Your task to perform on an android device: Clear all items from cart on walmart.com. Add logitech g910 to the cart on walmart.com Image 0: 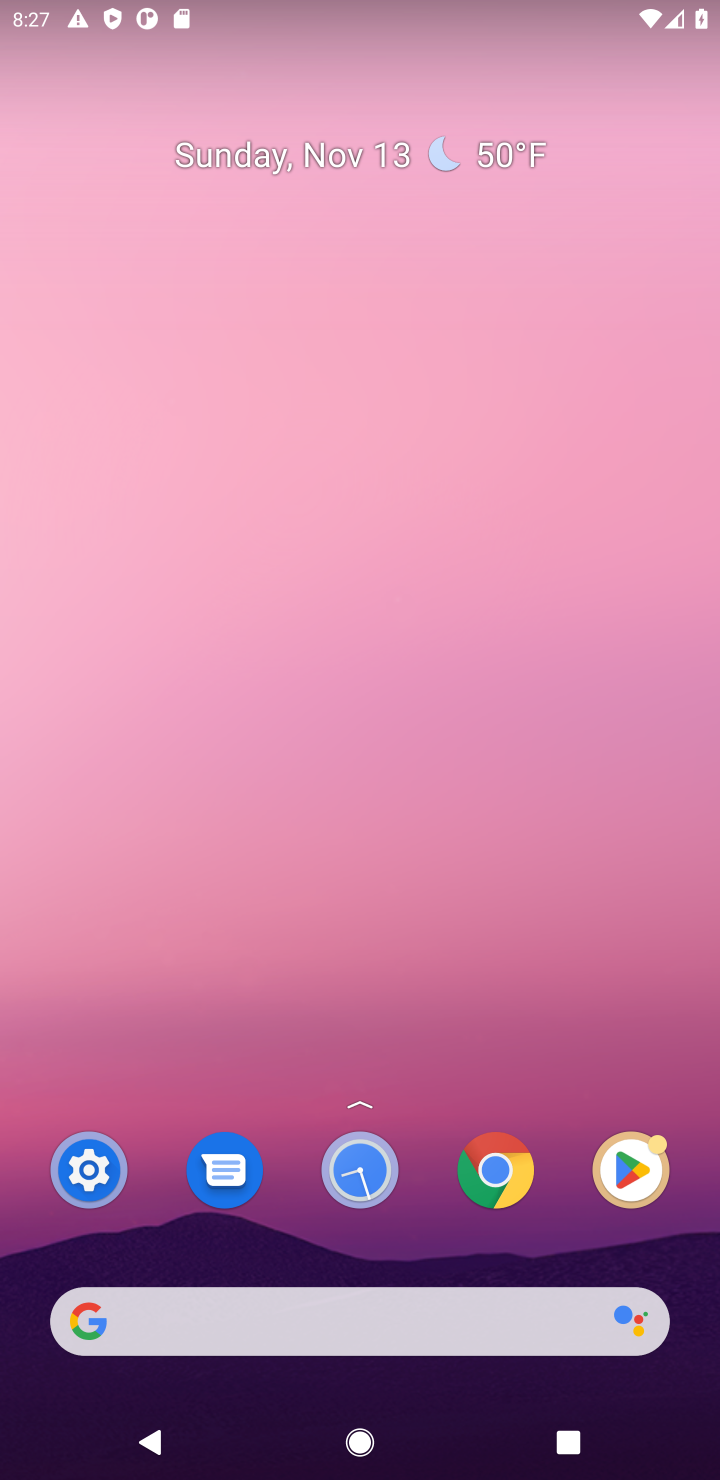
Step 0: click (345, 1349)
Your task to perform on an android device: Clear all items from cart on walmart.com. Add logitech g910 to the cart on walmart.com Image 1: 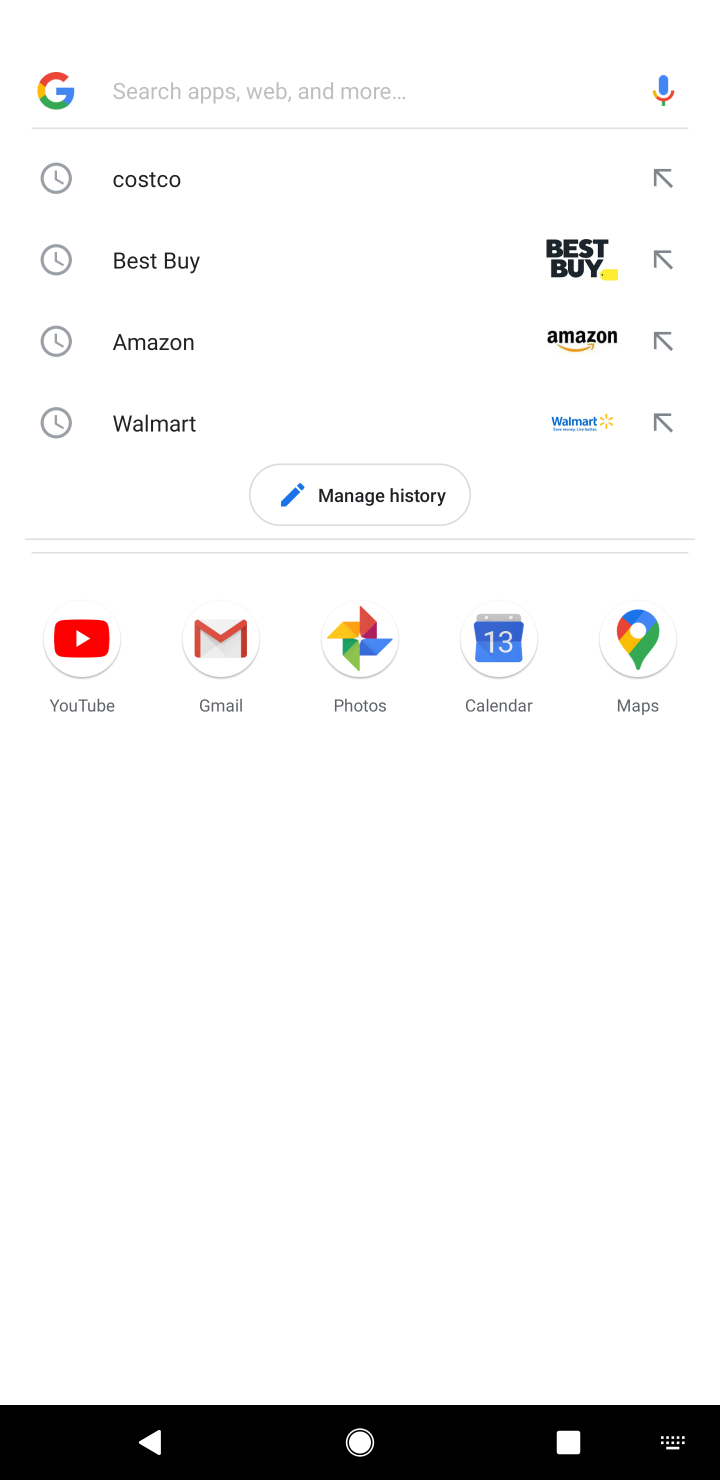
Step 1: type "walmart"
Your task to perform on an android device: Clear all items from cart on walmart.com. Add logitech g910 to the cart on walmart.com Image 2: 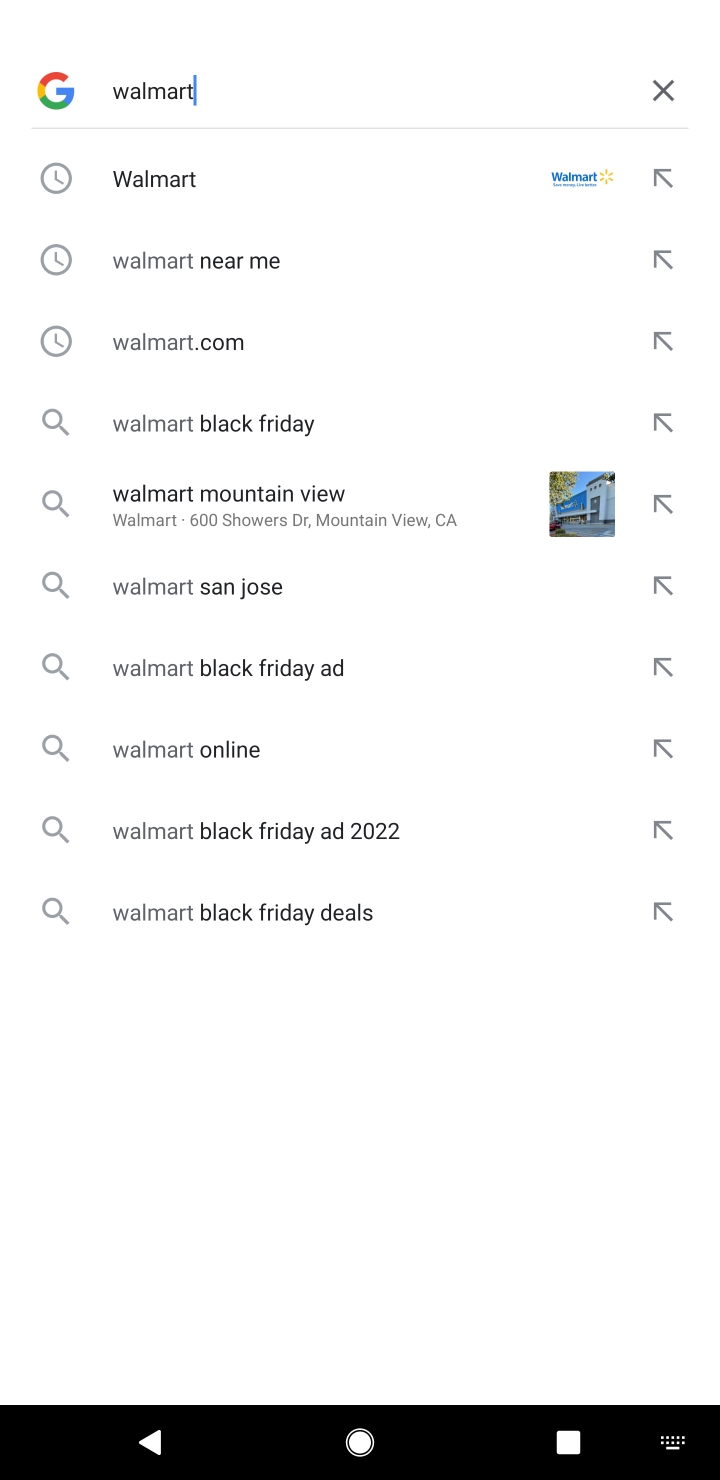
Step 2: click (250, 191)
Your task to perform on an android device: Clear all items from cart on walmart.com. Add logitech g910 to the cart on walmart.com Image 3: 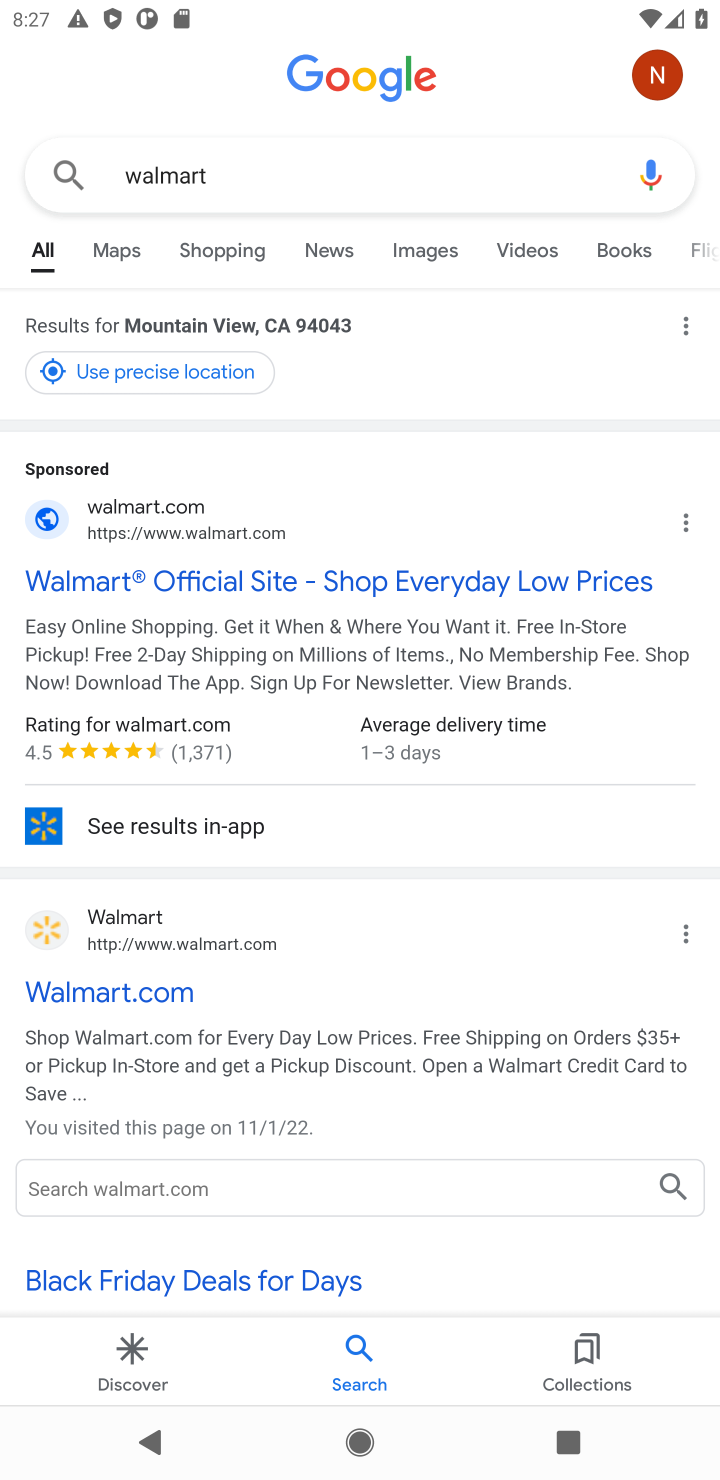
Step 3: click (325, 575)
Your task to perform on an android device: Clear all items from cart on walmart.com. Add logitech g910 to the cart on walmart.com Image 4: 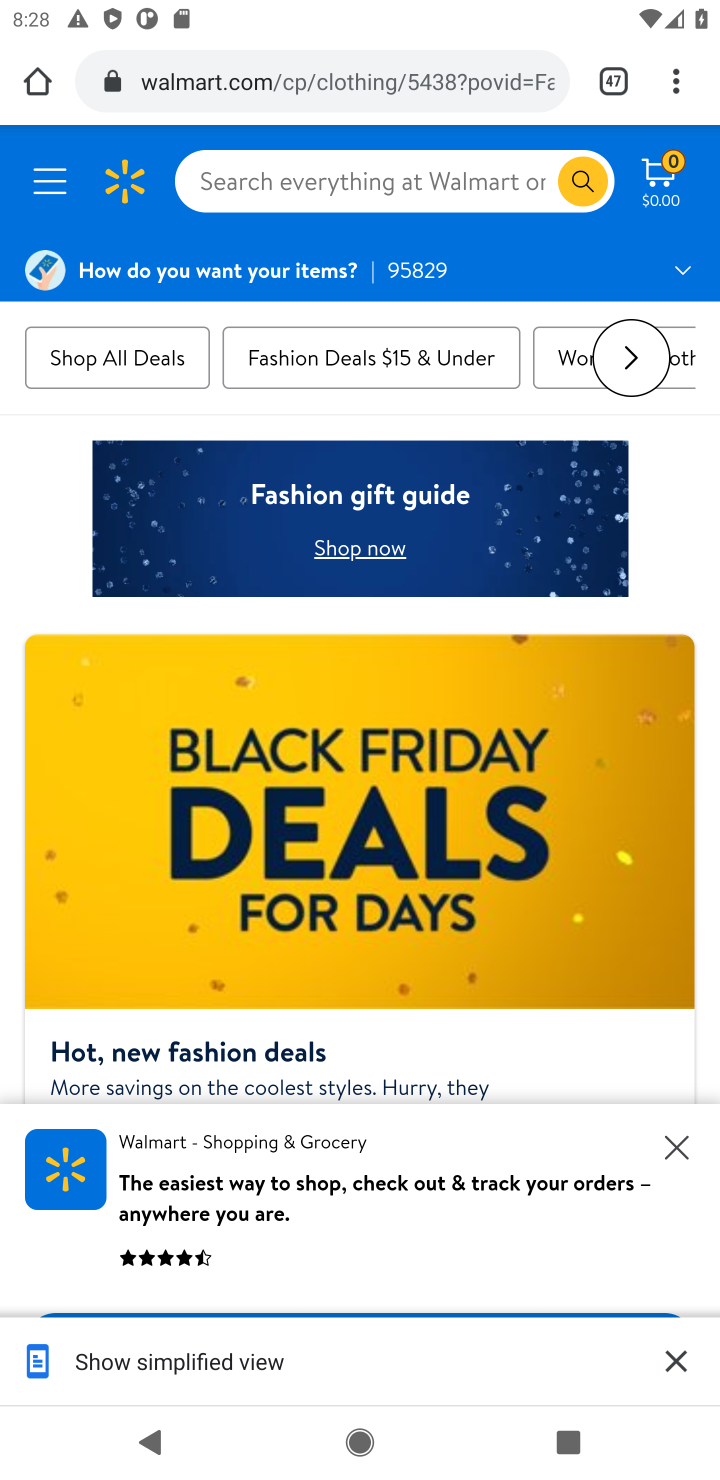
Step 4: task complete